Your task to perform on an android device: Go to display settings Image 0: 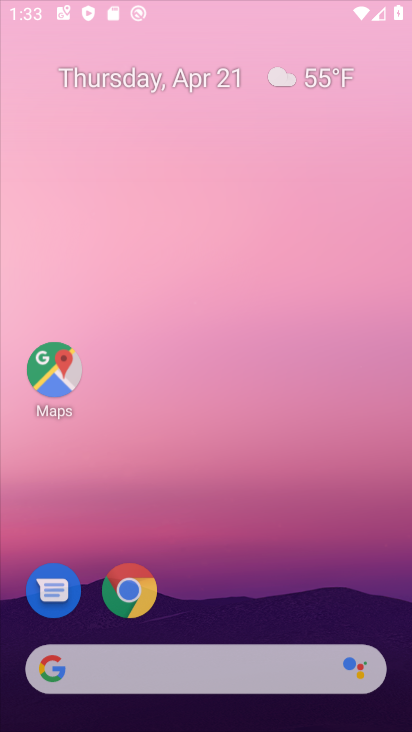
Step 0: click (150, 606)
Your task to perform on an android device: Go to display settings Image 1: 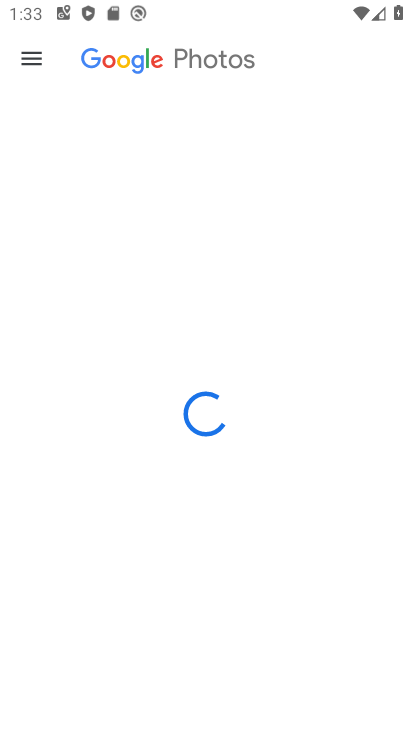
Step 1: press home button
Your task to perform on an android device: Go to display settings Image 2: 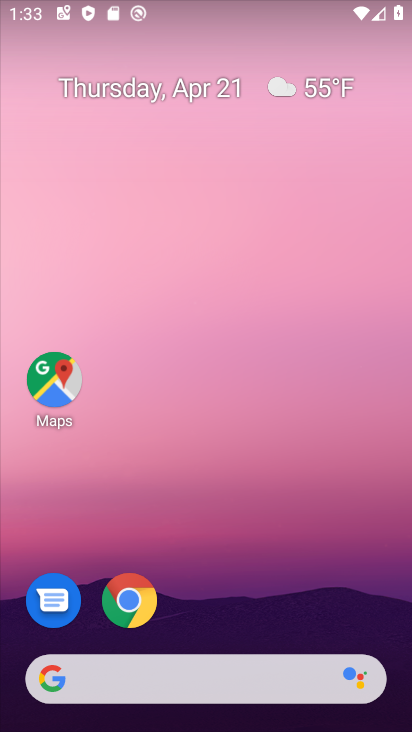
Step 2: drag from (341, 560) to (332, 101)
Your task to perform on an android device: Go to display settings Image 3: 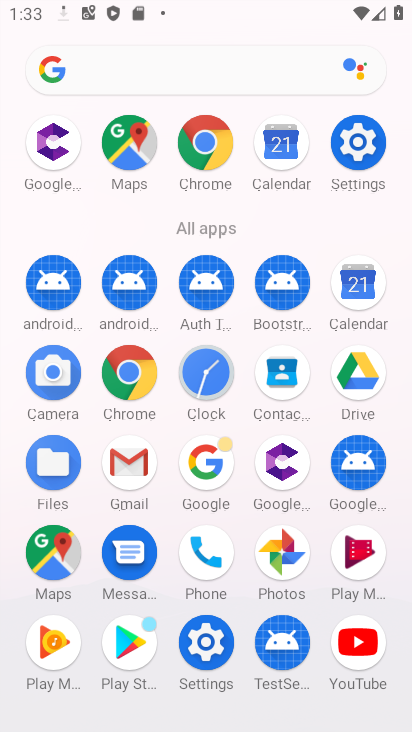
Step 3: click (355, 172)
Your task to perform on an android device: Go to display settings Image 4: 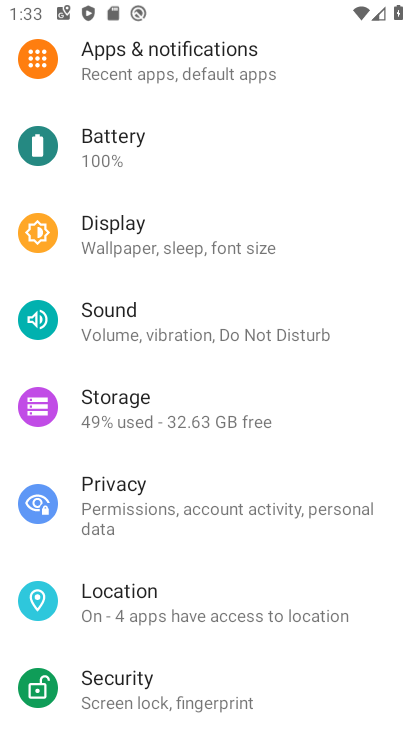
Step 4: click (146, 244)
Your task to perform on an android device: Go to display settings Image 5: 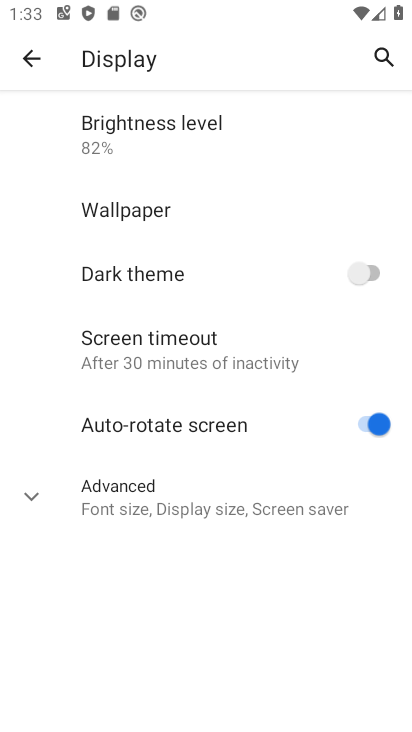
Step 5: task complete